Your task to perform on an android device: What's the weather today? Image 0: 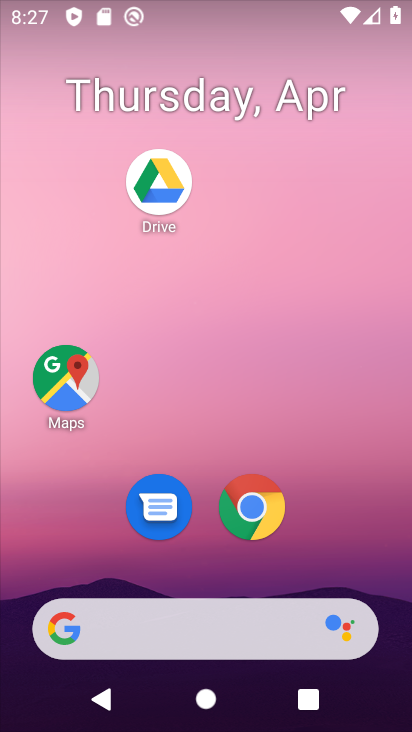
Step 0: click (240, 629)
Your task to perform on an android device: What's the weather today? Image 1: 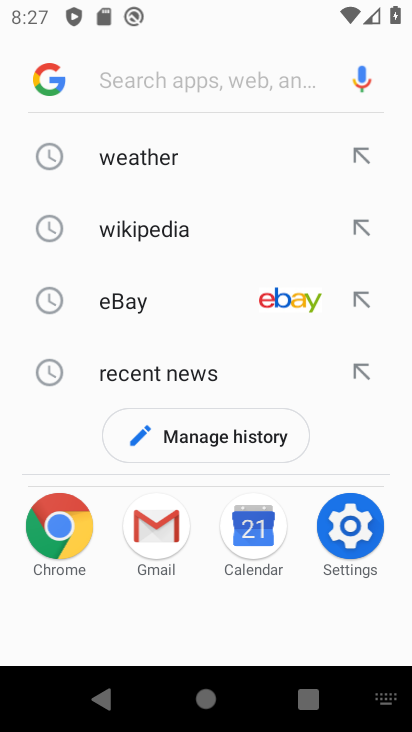
Step 1: click (154, 158)
Your task to perform on an android device: What's the weather today? Image 2: 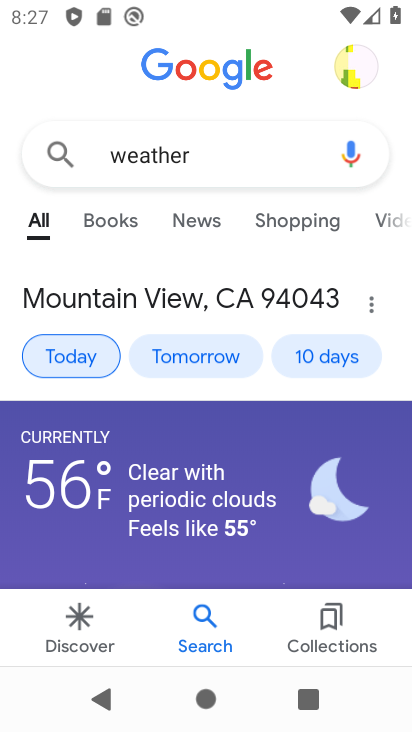
Step 2: task complete